Your task to perform on an android device: Show the shopping cart on newegg. Add "razer thresher" to the cart on newegg Image 0: 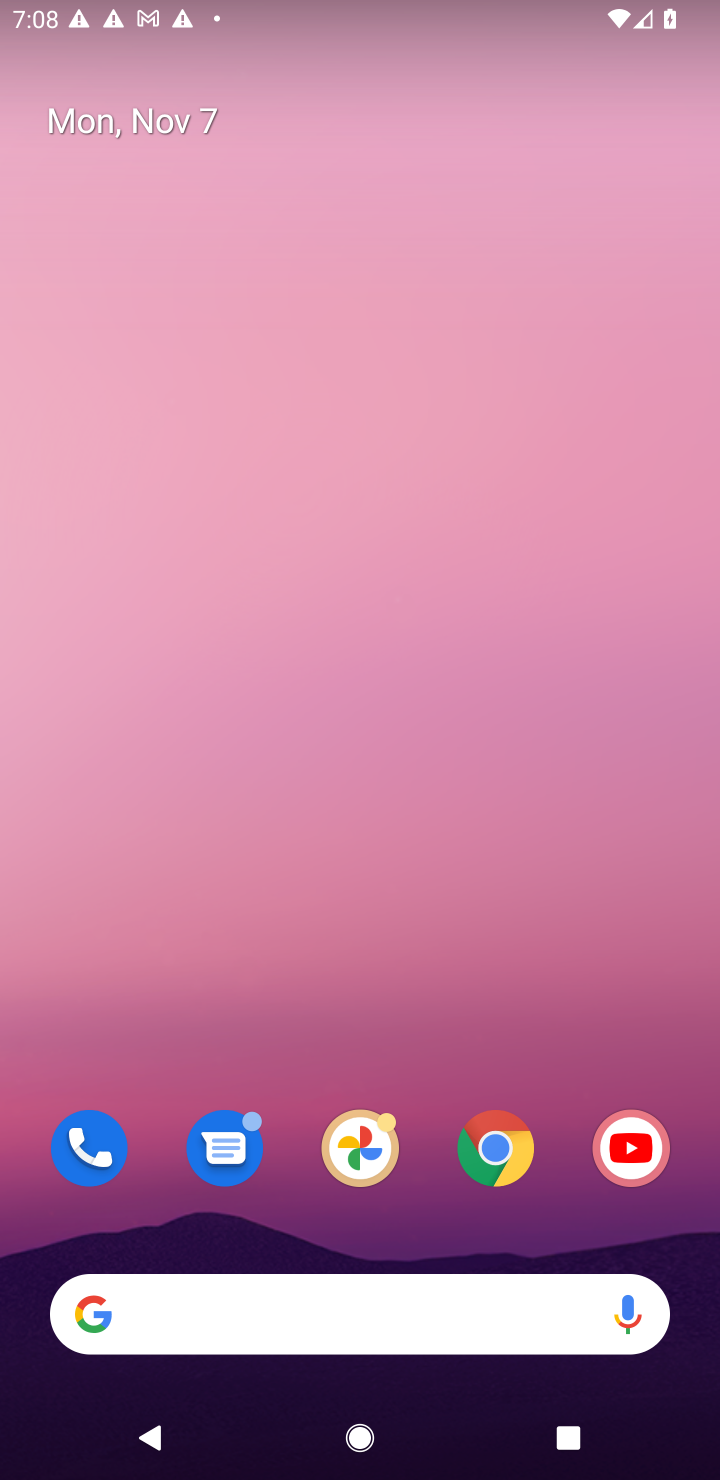
Step 0: click (508, 1149)
Your task to perform on an android device: Show the shopping cart on newegg. Add "razer thresher" to the cart on newegg Image 1: 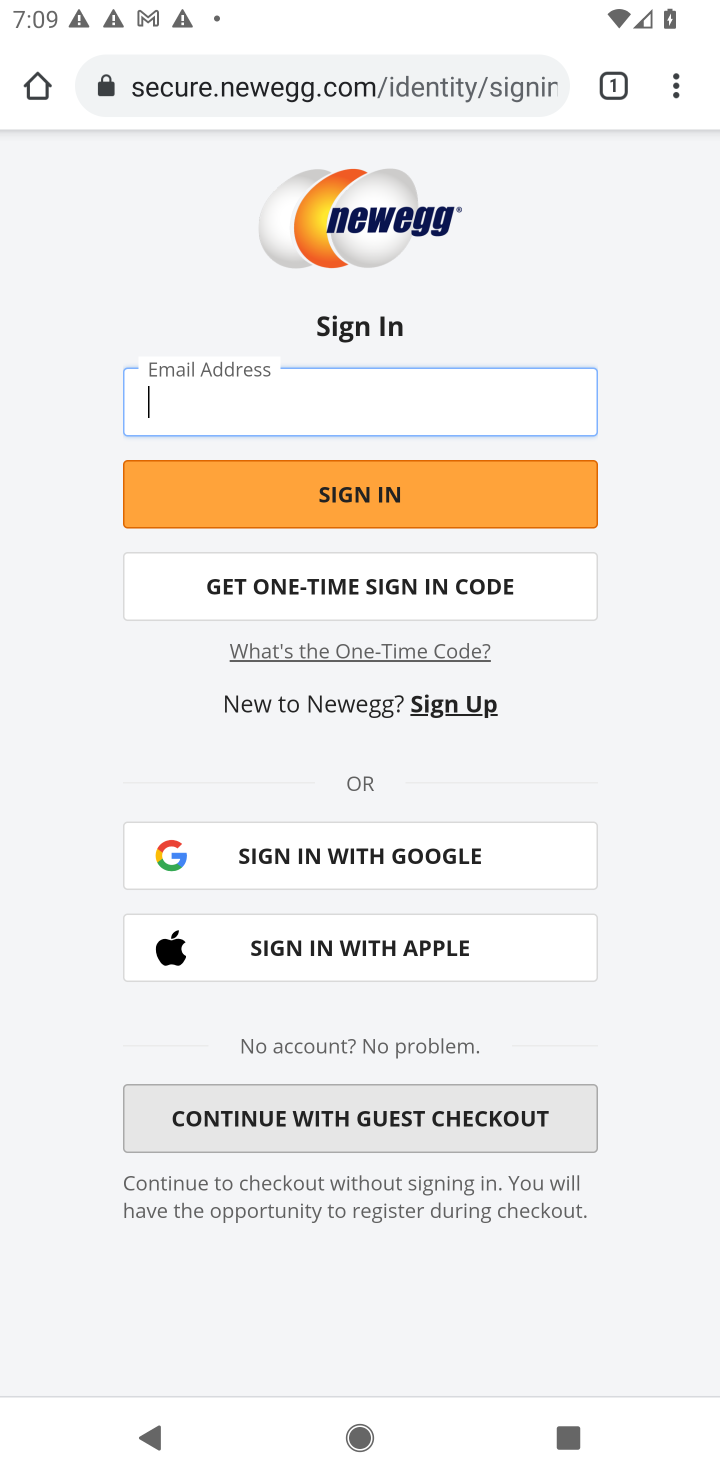
Step 1: press home button
Your task to perform on an android device: Show the shopping cart on newegg. Add "razer thresher" to the cart on newegg Image 2: 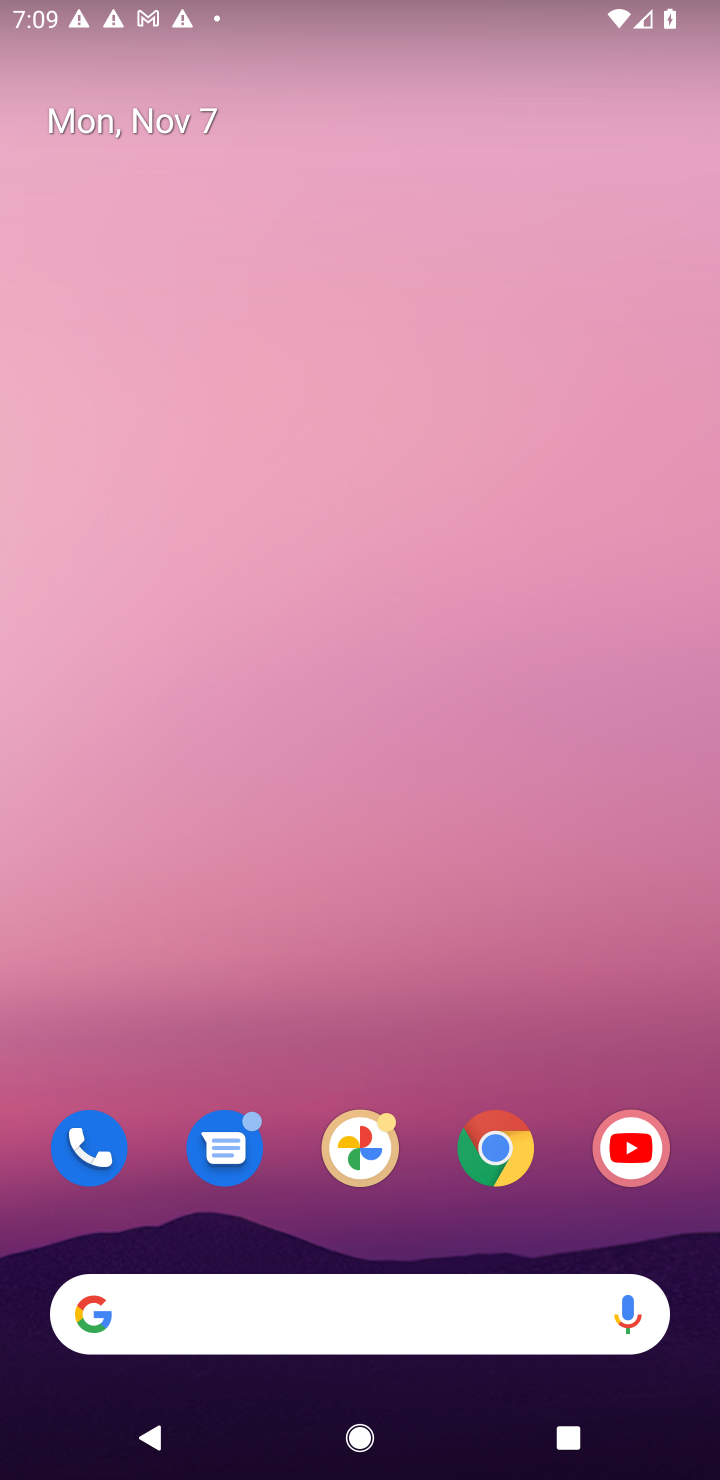
Step 2: click (503, 1141)
Your task to perform on an android device: Show the shopping cart on newegg. Add "razer thresher" to the cart on newegg Image 3: 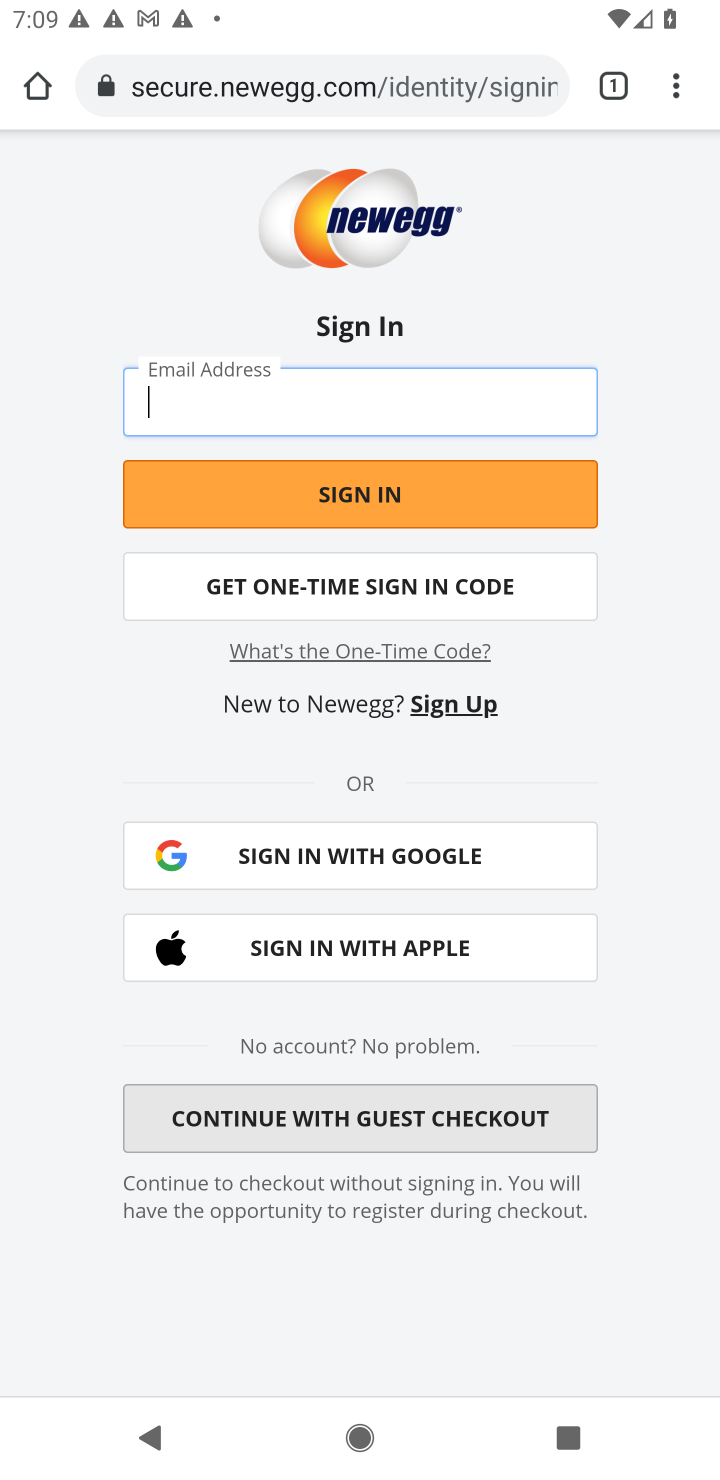
Step 3: press back button
Your task to perform on an android device: Show the shopping cart on newegg. Add "razer thresher" to the cart on newegg Image 4: 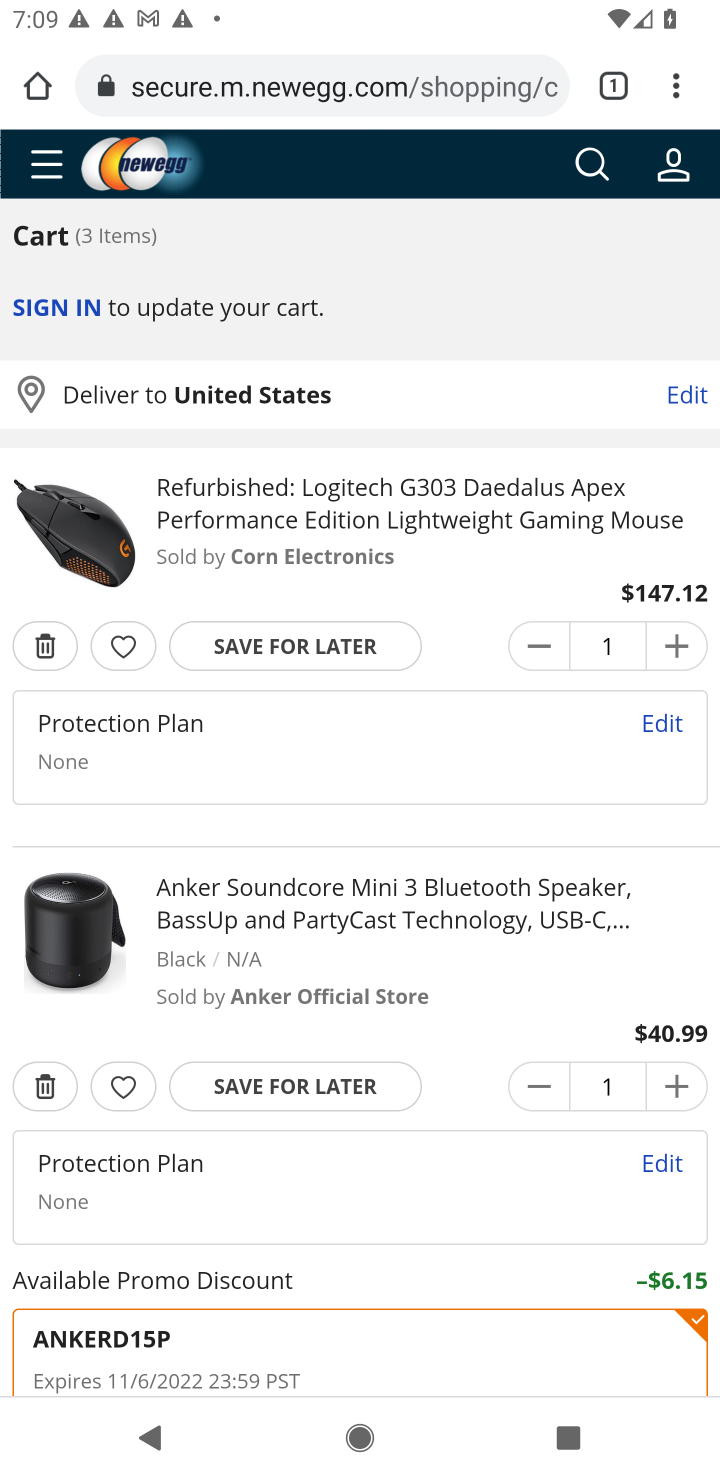
Step 4: drag from (417, 420) to (524, 1239)
Your task to perform on an android device: Show the shopping cart on newegg. Add "razer thresher" to the cart on newegg Image 5: 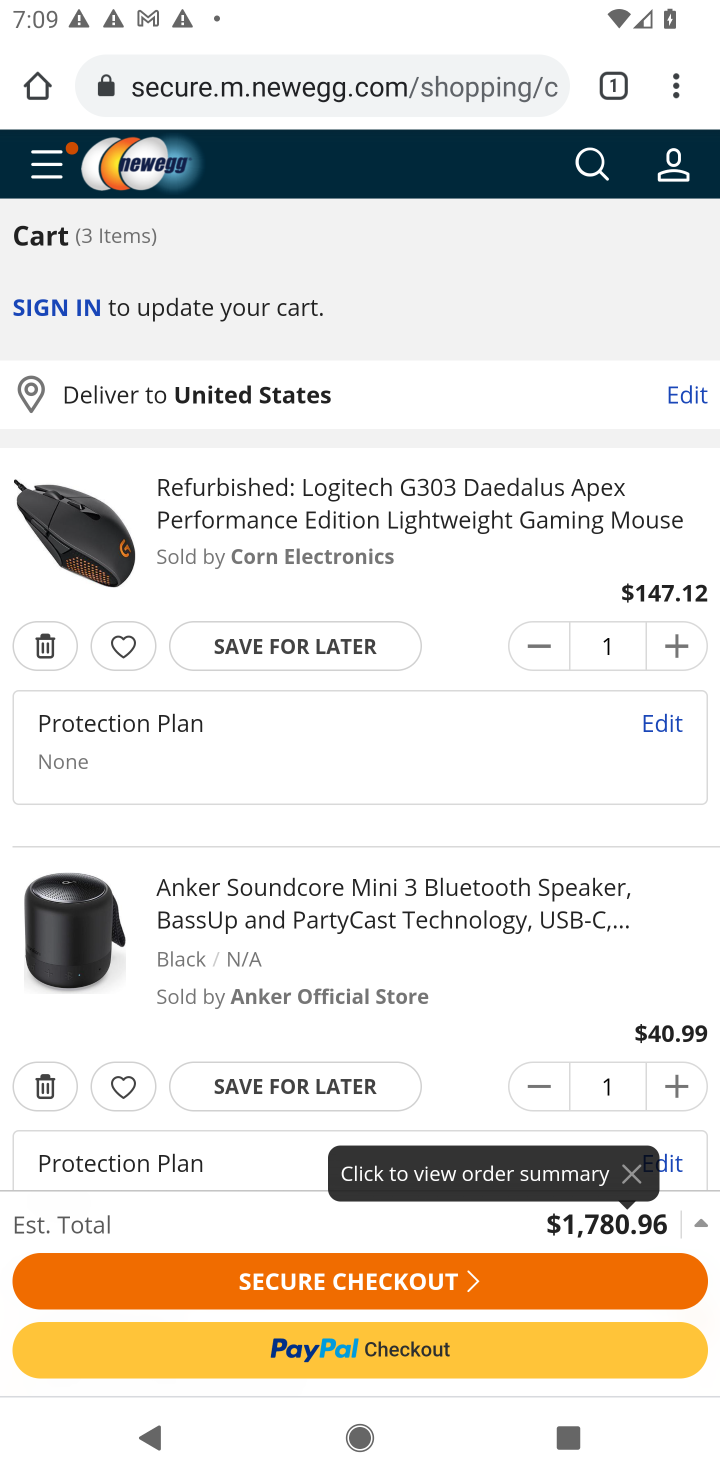
Step 5: click (583, 165)
Your task to perform on an android device: Show the shopping cart on newegg. Add "razer thresher" to the cart on newegg Image 6: 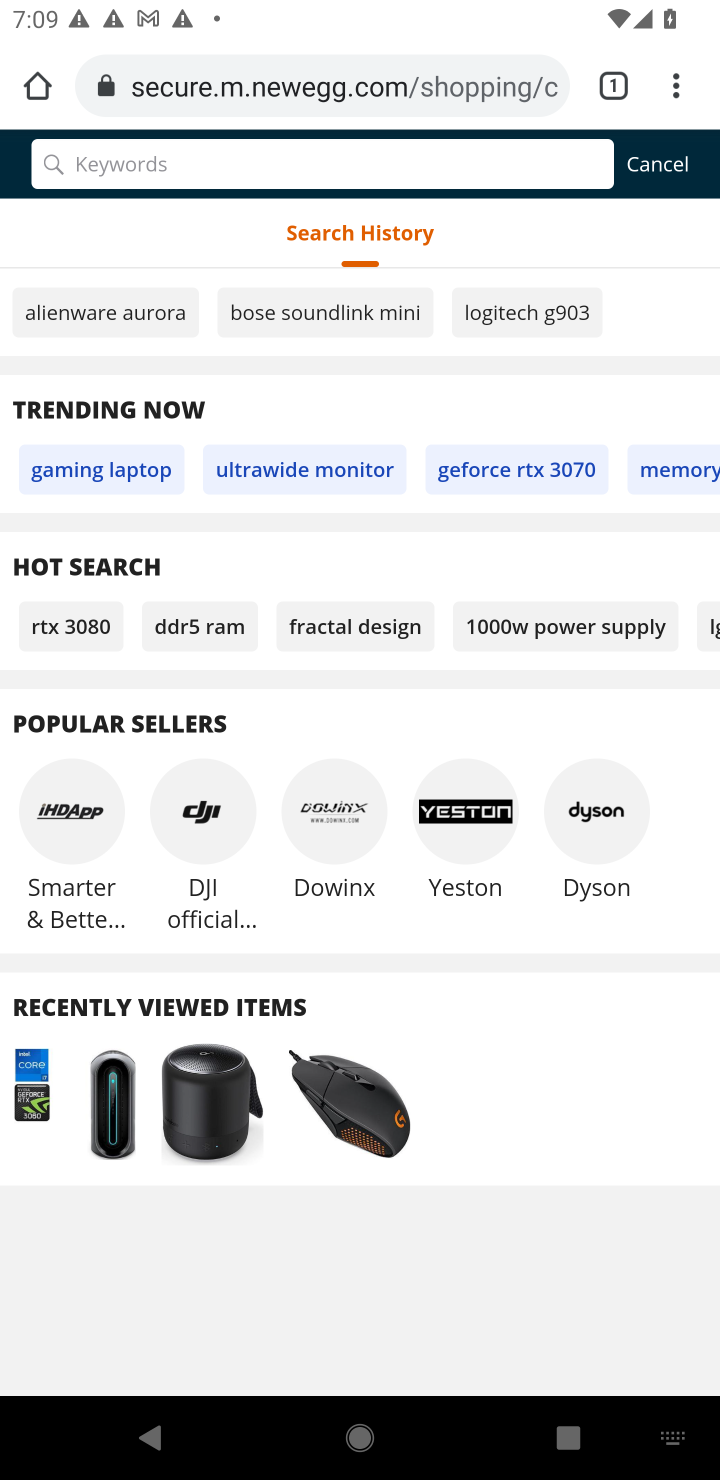
Step 6: type "razer thresher"
Your task to perform on an android device: Show the shopping cart on newegg. Add "razer thresher" to the cart on newegg Image 7: 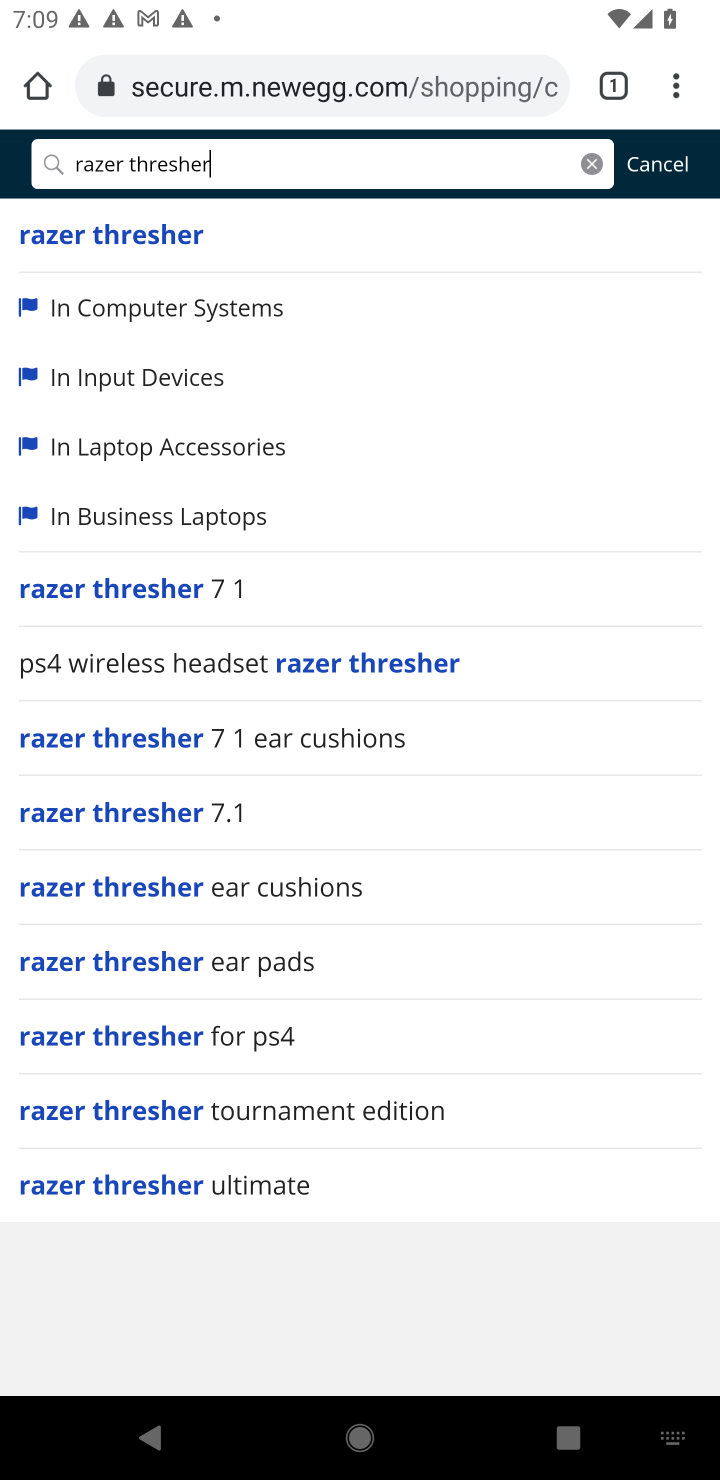
Step 7: click (475, 1291)
Your task to perform on an android device: Show the shopping cart on newegg. Add "razer thresher" to the cart on newegg Image 8: 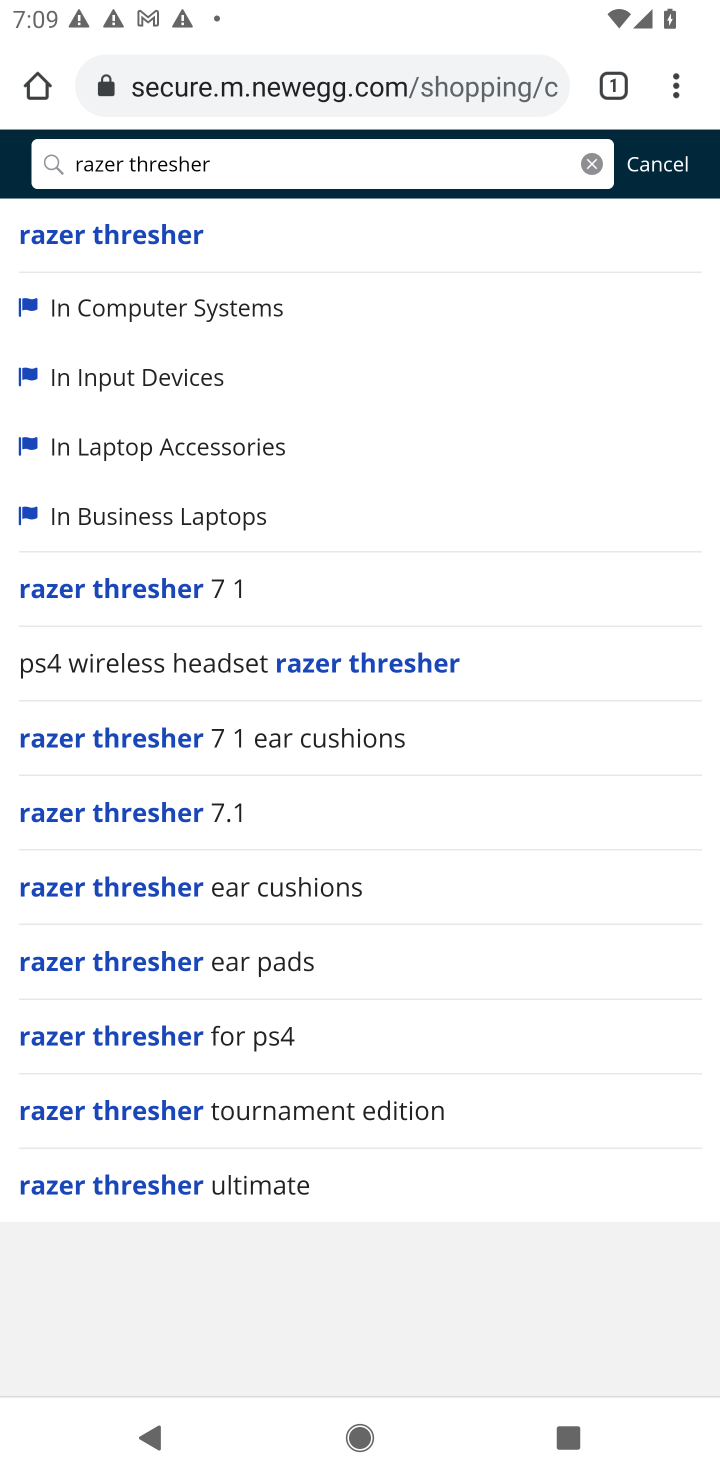
Step 8: click (177, 228)
Your task to perform on an android device: Show the shopping cart on newegg. Add "razer thresher" to the cart on newegg Image 9: 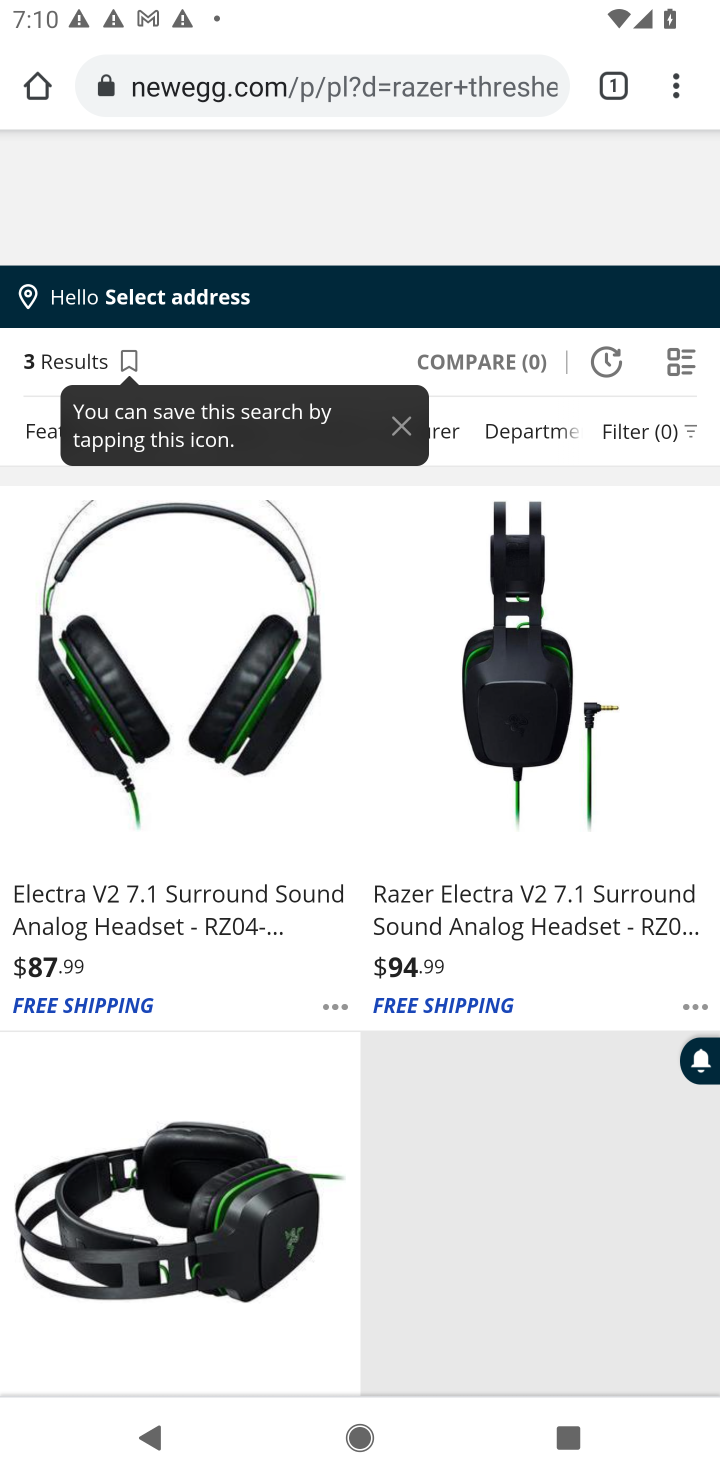
Step 9: task complete